Your task to perform on an android device: Open Google Chrome Image 0: 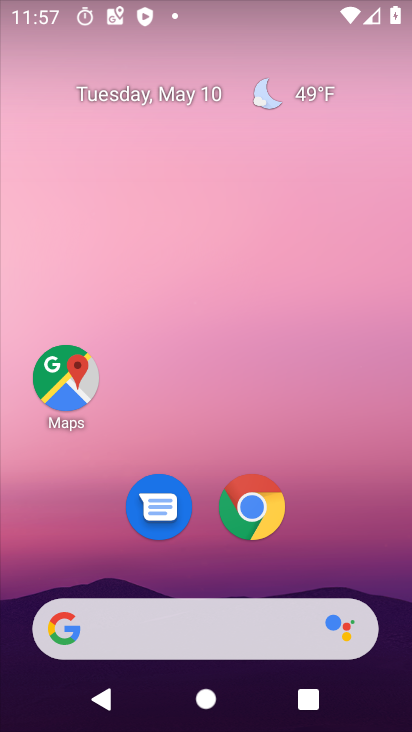
Step 0: click (258, 503)
Your task to perform on an android device: Open Google Chrome Image 1: 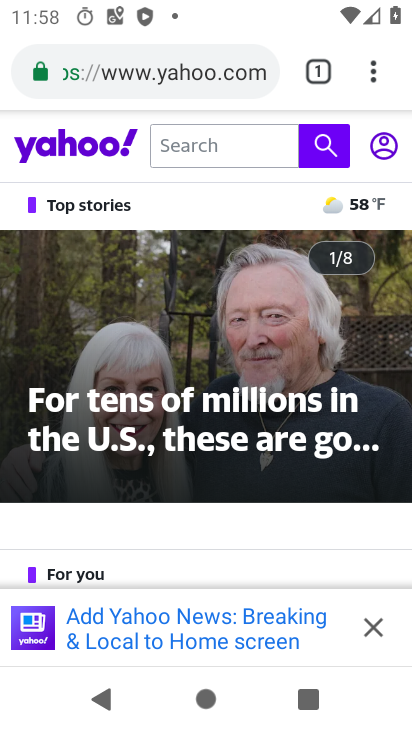
Step 1: task complete